Your task to perform on an android device: When is my next appointment? Image 0: 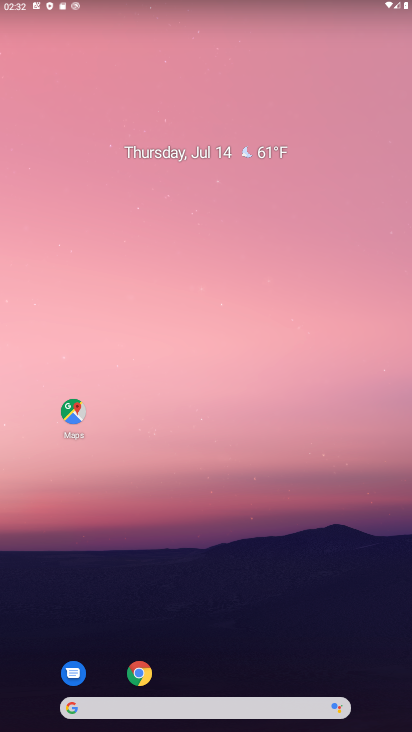
Step 0: drag from (307, 625) to (304, 243)
Your task to perform on an android device: When is my next appointment? Image 1: 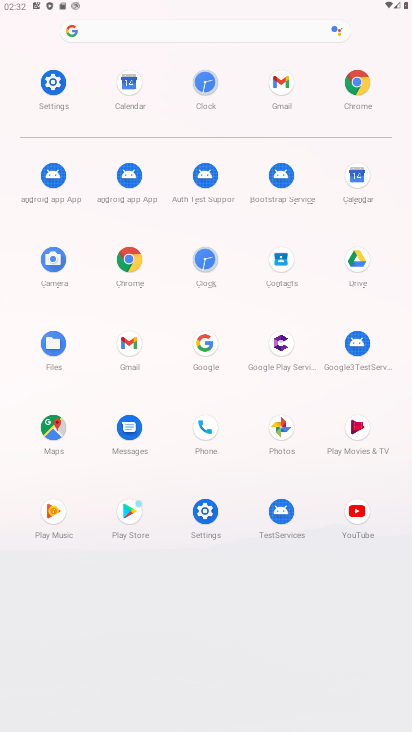
Step 1: click (112, 76)
Your task to perform on an android device: When is my next appointment? Image 2: 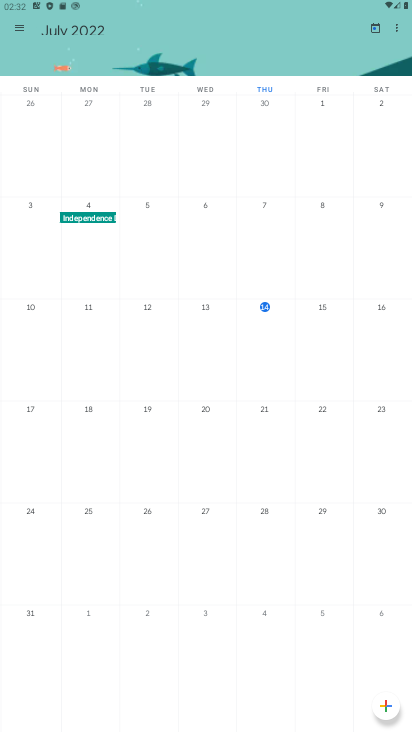
Step 2: task complete